Your task to perform on an android device: Play the last video I watched on Youtube Image 0: 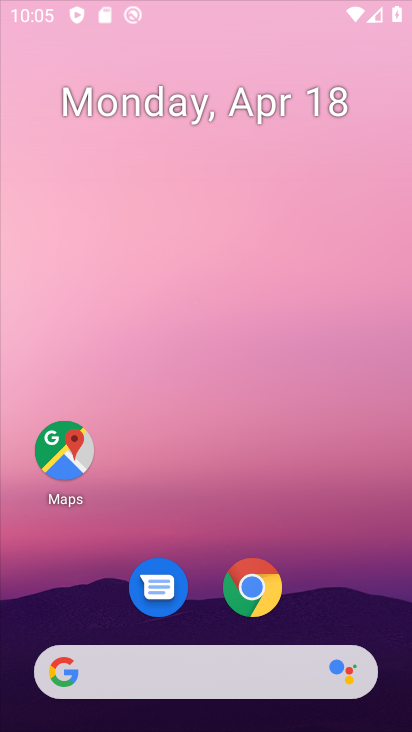
Step 0: click (200, 107)
Your task to perform on an android device: Play the last video I watched on Youtube Image 1: 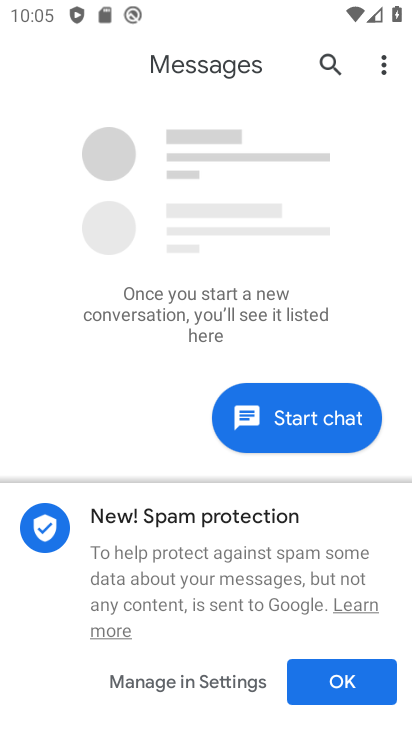
Step 1: click (349, 678)
Your task to perform on an android device: Play the last video I watched on Youtube Image 2: 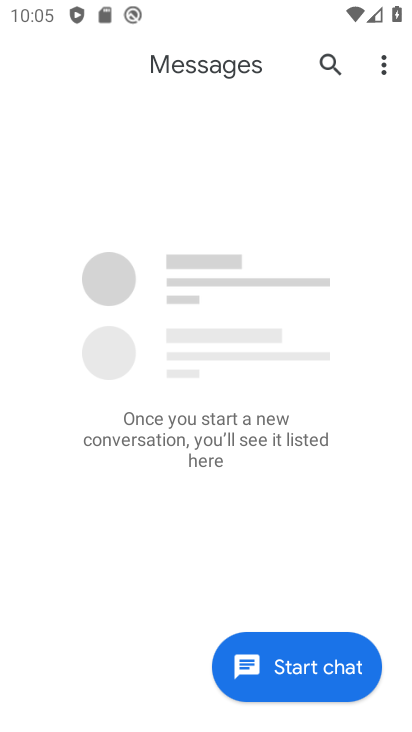
Step 2: click (320, 670)
Your task to perform on an android device: Play the last video I watched on Youtube Image 3: 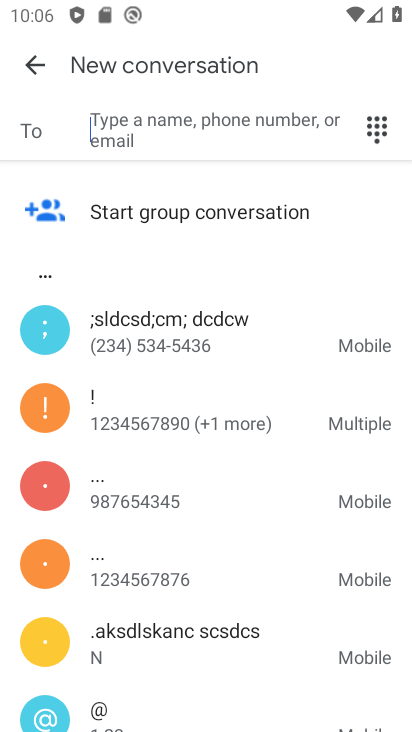
Step 3: click (31, 64)
Your task to perform on an android device: Play the last video I watched on Youtube Image 4: 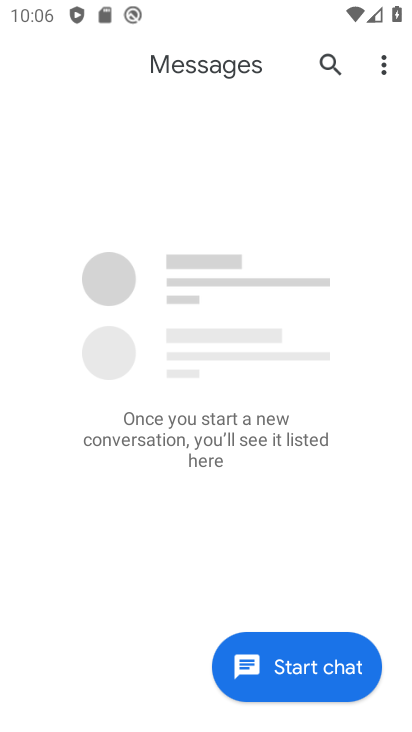
Step 4: click (304, 685)
Your task to perform on an android device: Play the last video I watched on Youtube Image 5: 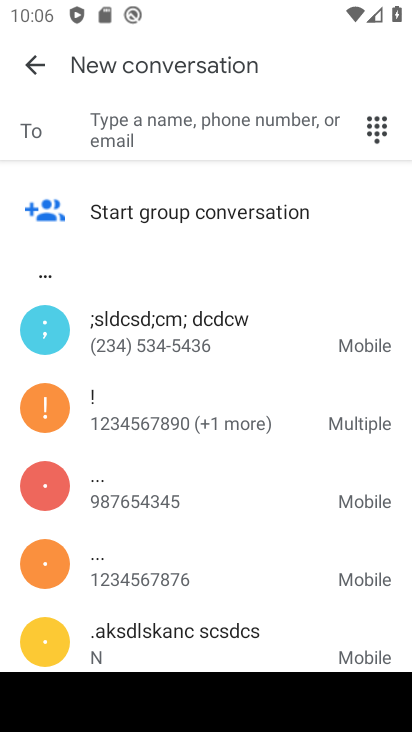
Step 5: click (28, 65)
Your task to perform on an android device: Play the last video I watched on Youtube Image 6: 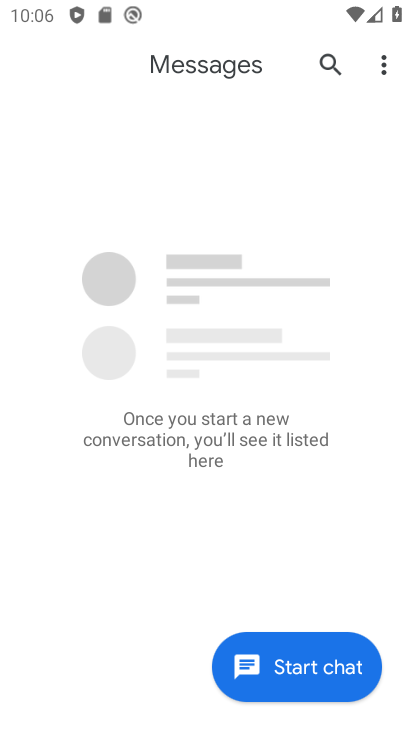
Step 6: click (308, 664)
Your task to perform on an android device: Play the last video I watched on Youtube Image 7: 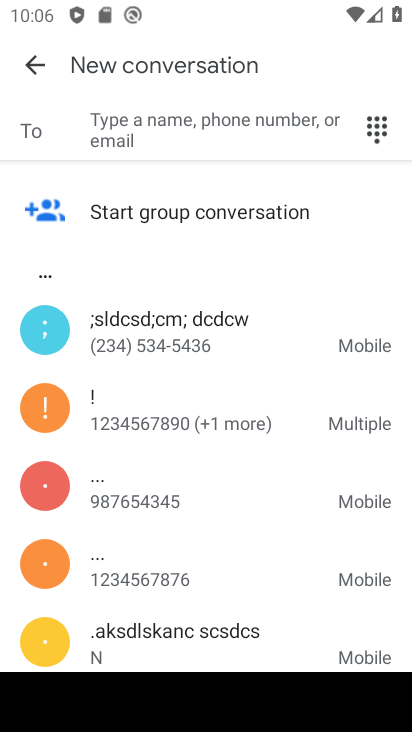
Step 7: click (19, 61)
Your task to perform on an android device: Play the last video I watched on Youtube Image 8: 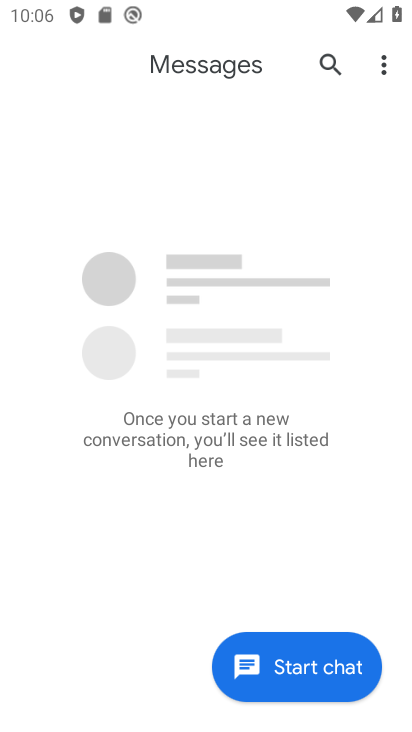
Step 8: click (342, 676)
Your task to perform on an android device: Play the last video I watched on Youtube Image 9: 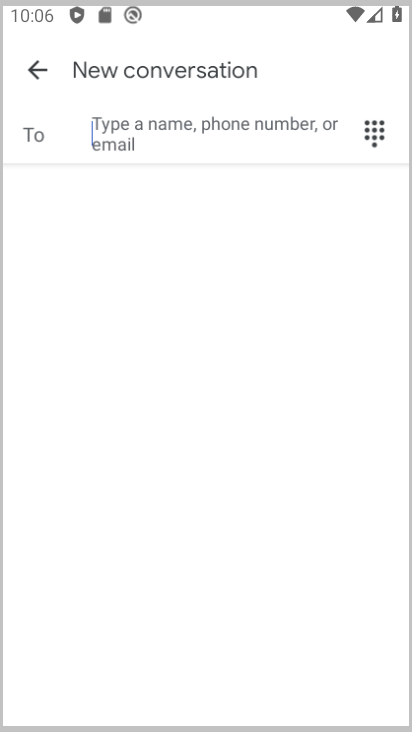
Step 9: press home button
Your task to perform on an android device: Play the last video I watched on Youtube Image 10: 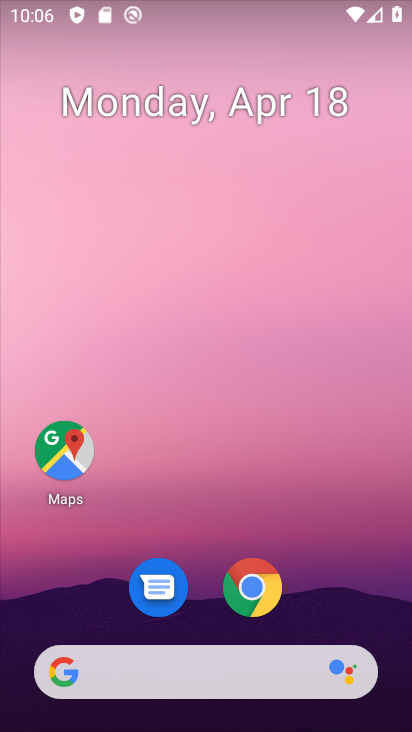
Step 10: drag from (264, 713) to (205, 233)
Your task to perform on an android device: Play the last video I watched on Youtube Image 11: 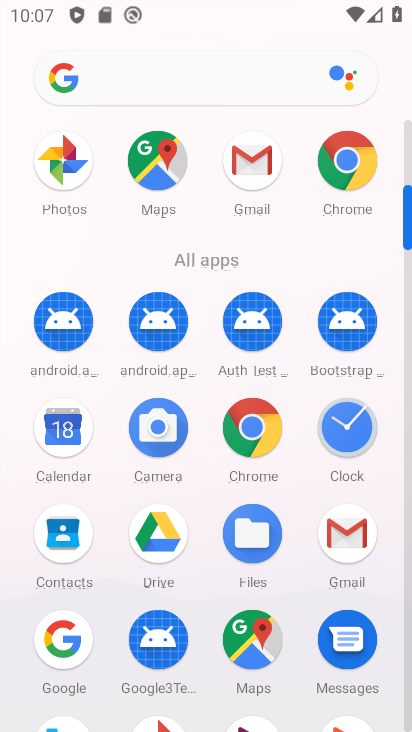
Step 11: drag from (257, 624) to (224, 402)
Your task to perform on an android device: Play the last video I watched on Youtube Image 12: 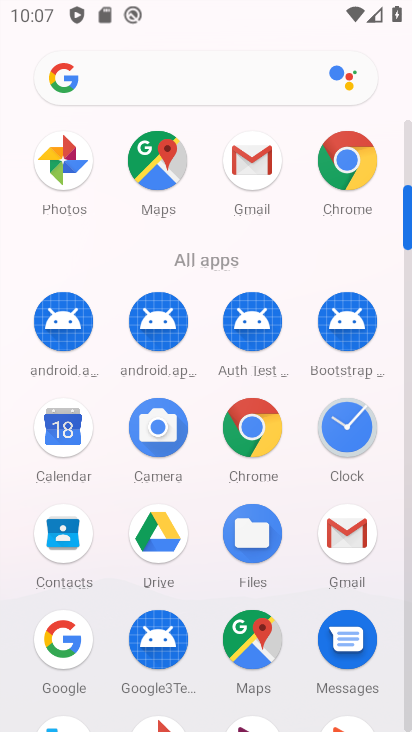
Step 12: drag from (295, 591) to (183, 63)
Your task to perform on an android device: Play the last video I watched on Youtube Image 13: 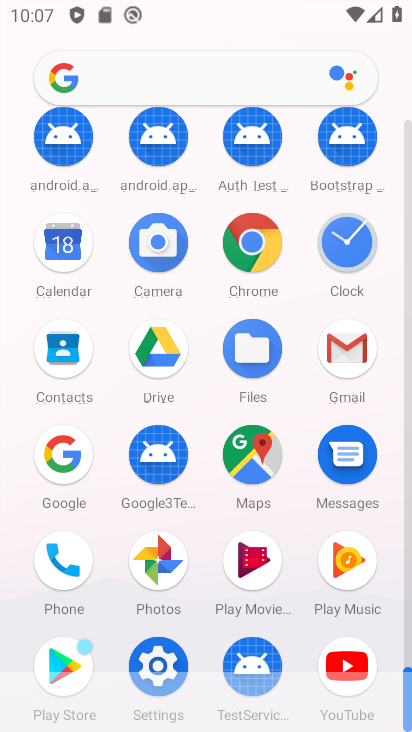
Step 13: click (346, 663)
Your task to perform on an android device: Play the last video I watched on Youtube Image 14: 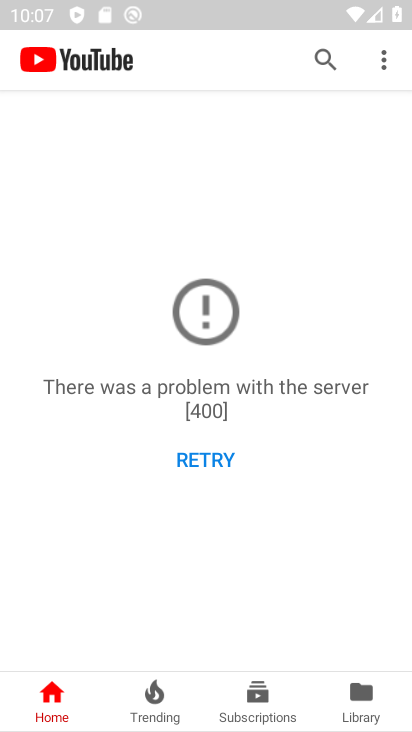
Step 14: click (360, 664)
Your task to perform on an android device: Play the last video I watched on Youtube Image 15: 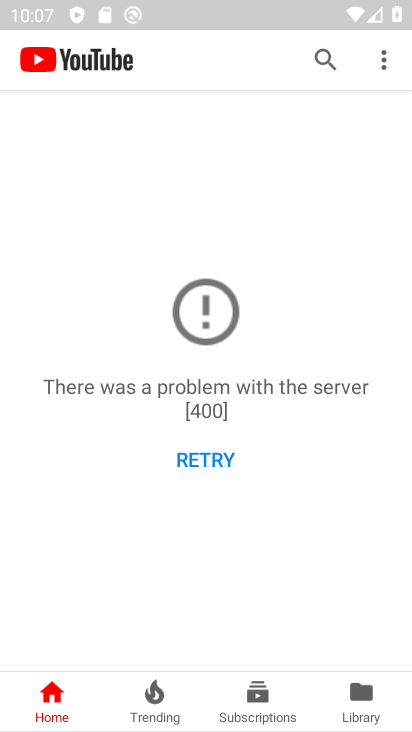
Step 15: click (360, 664)
Your task to perform on an android device: Play the last video I watched on Youtube Image 16: 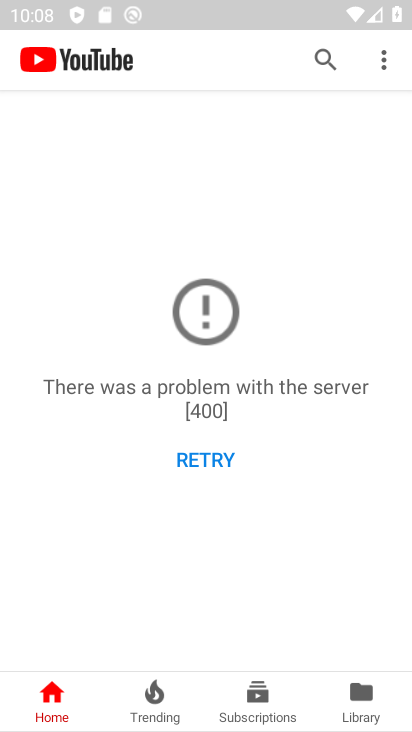
Step 16: click (247, 692)
Your task to perform on an android device: Play the last video I watched on Youtube Image 17: 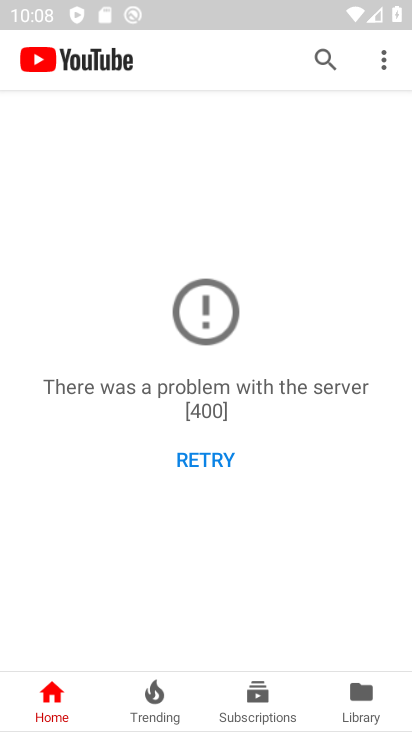
Step 17: click (203, 395)
Your task to perform on an android device: Play the last video I watched on Youtube Image 18: 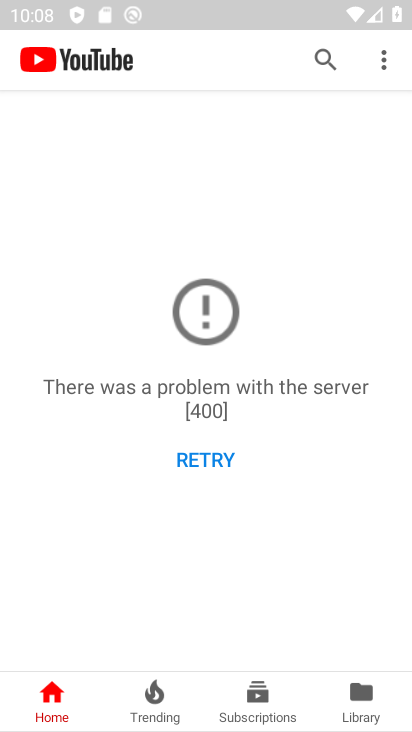
Step 18: click (203, 395)
Your task to perform on an android device: Play the last video I watched on Youtube Image 19: 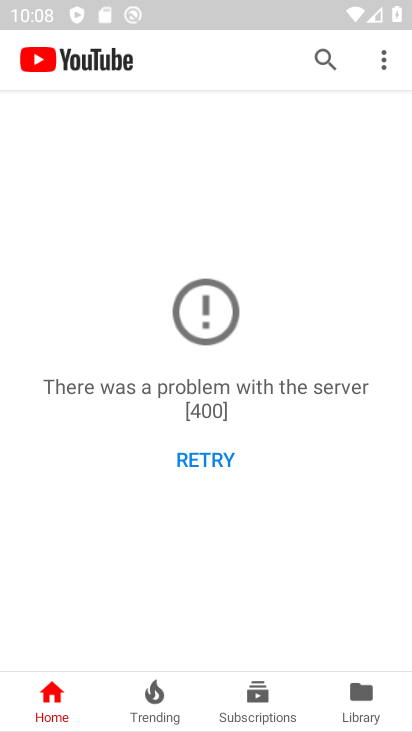
Step 19: task complete